Your task to perform on an android device: uninstall "ColorNote Notepad Notes" Image 0: 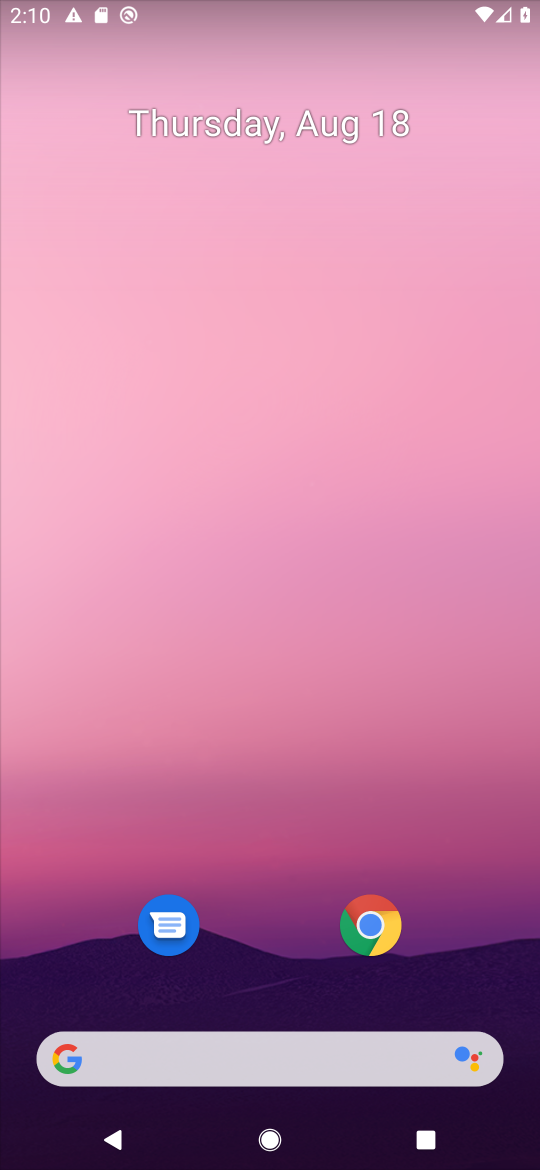
Step 0: drag from (237, 808) to (237, 220)
Your task to perform on an android device: uninstall "ColorNote Notepad Notes" Image 1: 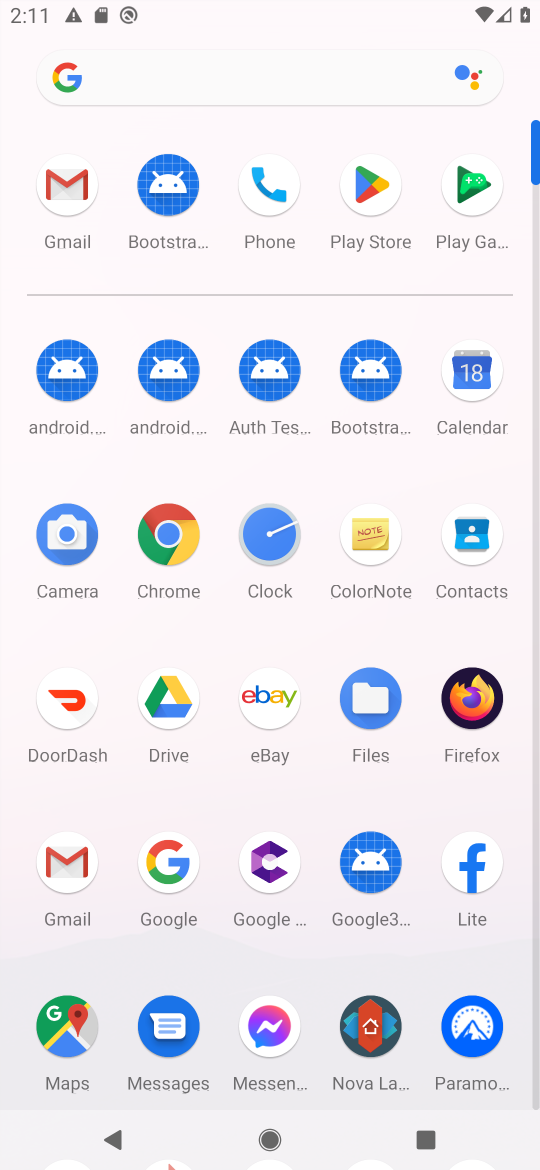
Step 1: click (372, 186)
Your task to perform on an android device: uninstall "ColorNote Notepad Notes" Image 2: 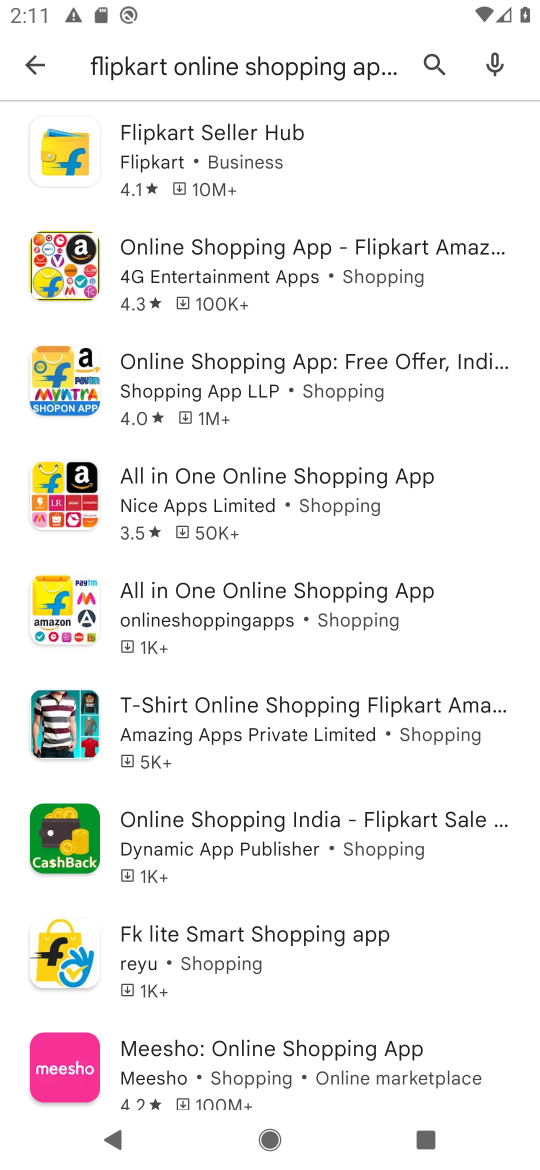
Step 2: click (46, 71)
Your task to perform on an android device: uninstall "ColorNote Notepad Notes" Image 3: 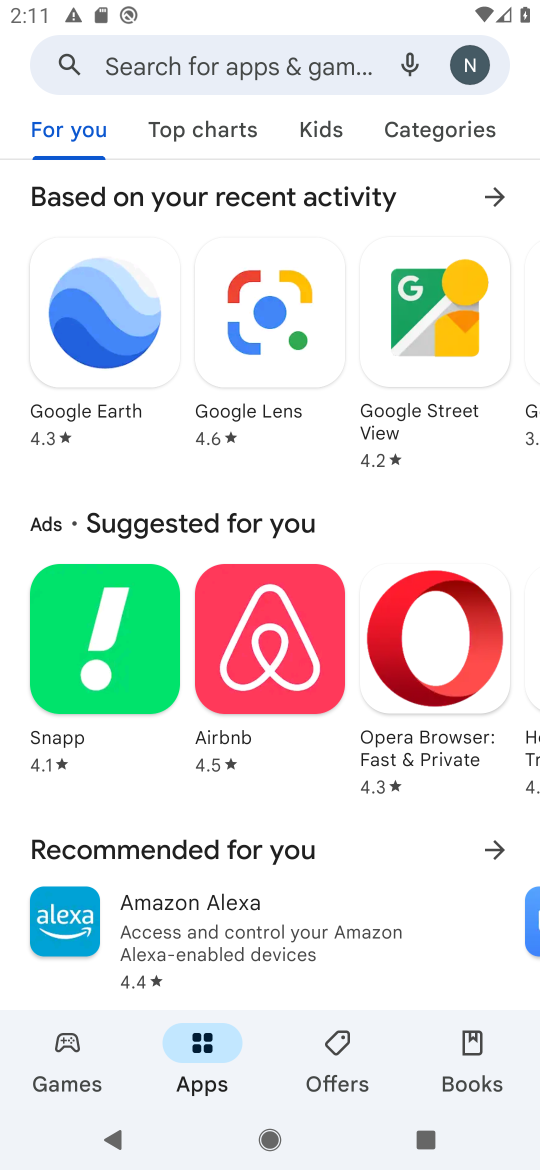
Step 3: click (220, 81)
Your task to perform on an android device: uninstall "ColorNote Notepad Notes" Image 4: 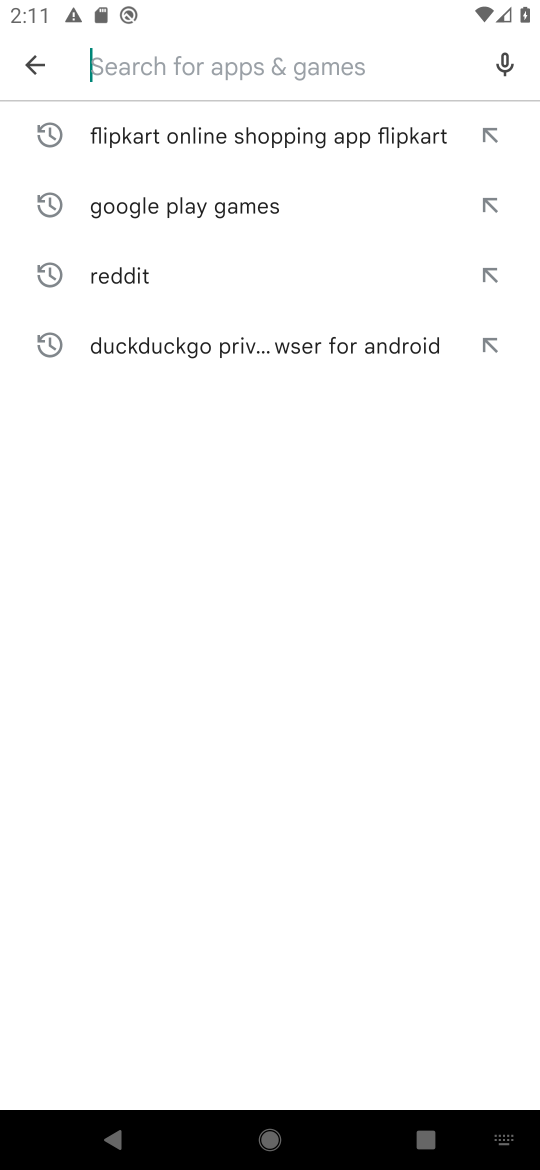
Step 4: type "ColorNote Notepad Note"
Your task to perform on an android device: uninstall "ColorNote Notepad Notes" Image 5: 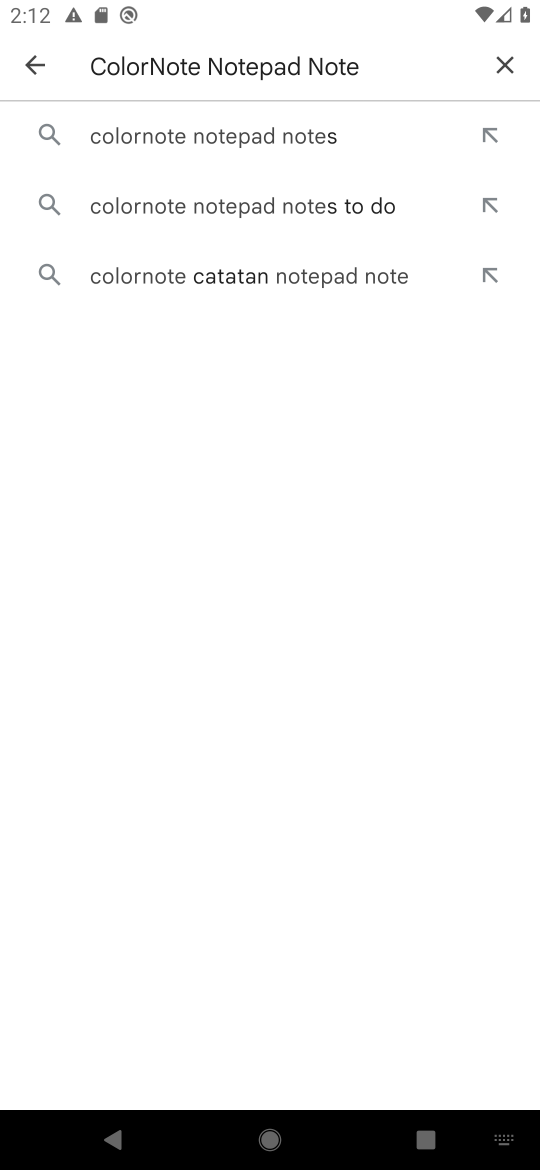
Step 5: click (267, 146)
Your task to perform on an android device: uninstall "ColorNote Notepad Notes" Image 6: 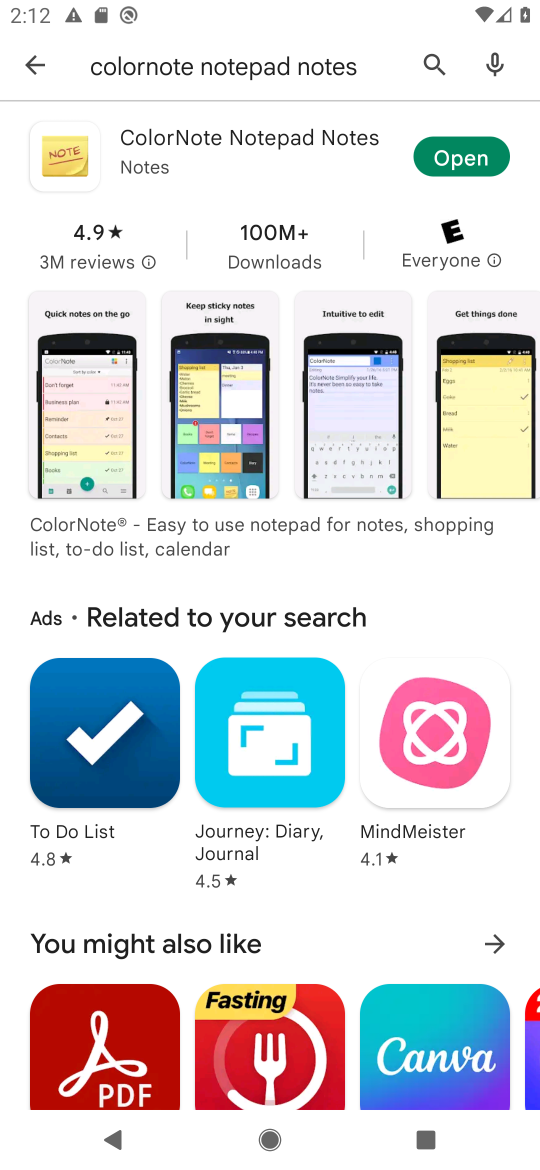
Step 6: click (459, 170)
Your task to perform on an android device: uninstall "ColorNote Notepad Notes" Image 7: 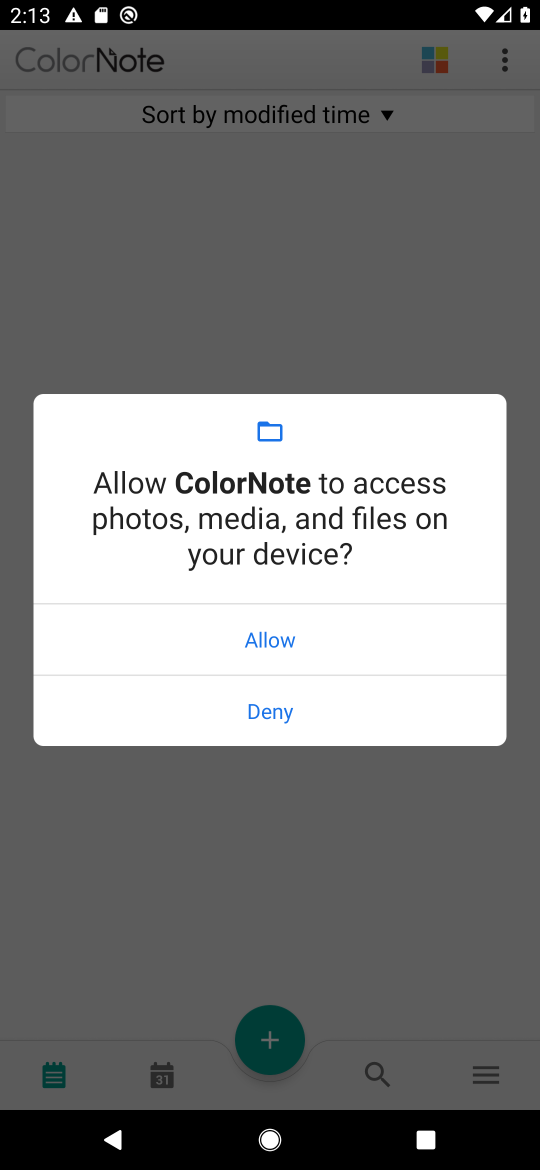
Step 7: click (257, 636)
Your task to perform on an android device: uninstall "ColorNote Notepad Notes" Image 8: 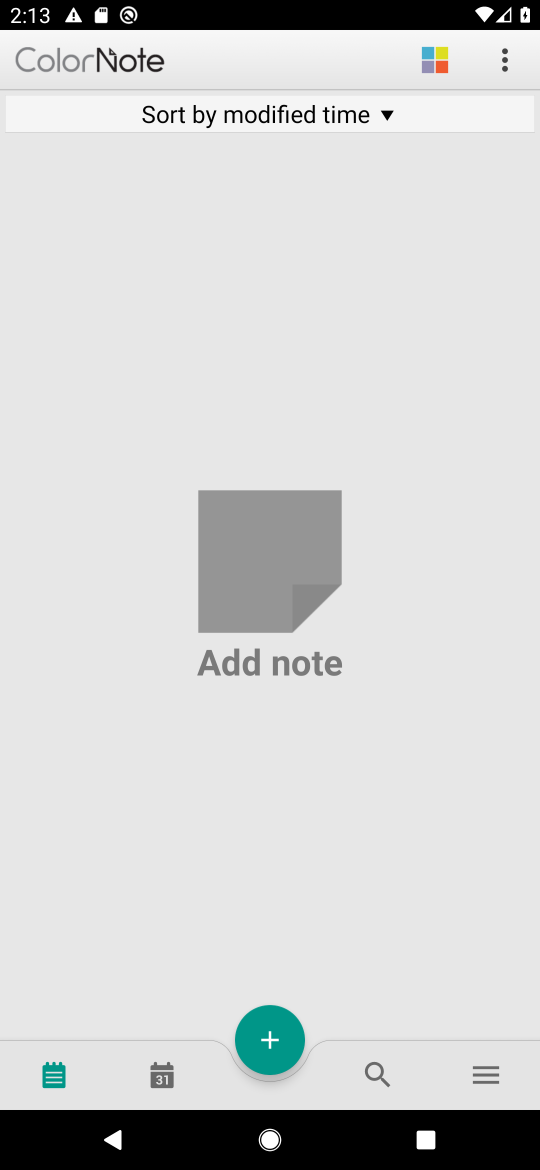
Step 8: press back button
Your task to perform on an android device: uninstall "ColorNote Notepad Notes" Image 9: 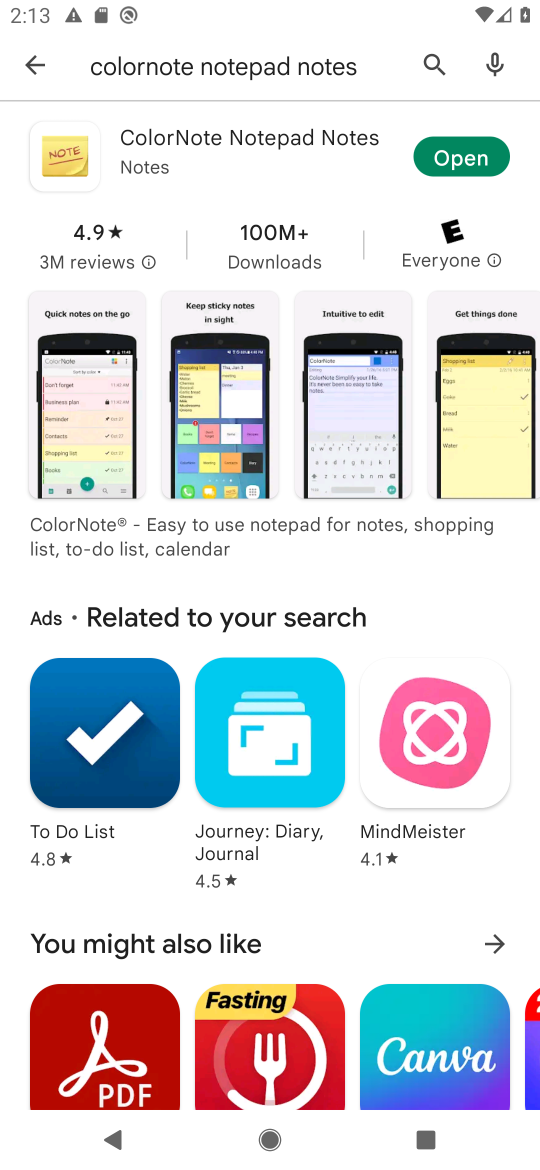
Step 9: click (30, 66)
Your task to perform on an android device: uninstall "ColorNote Notepad Notes" Image 10: 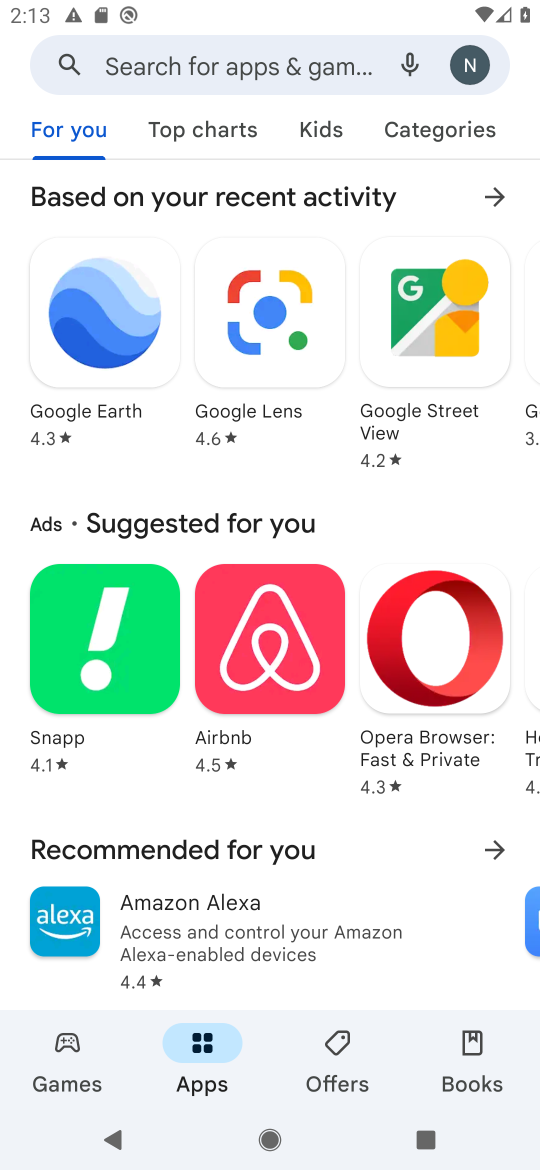
Step 10: click (165, 54)
Your task to perform on an android device: uninstall "ColorNote Notepad Notes" Image 11: 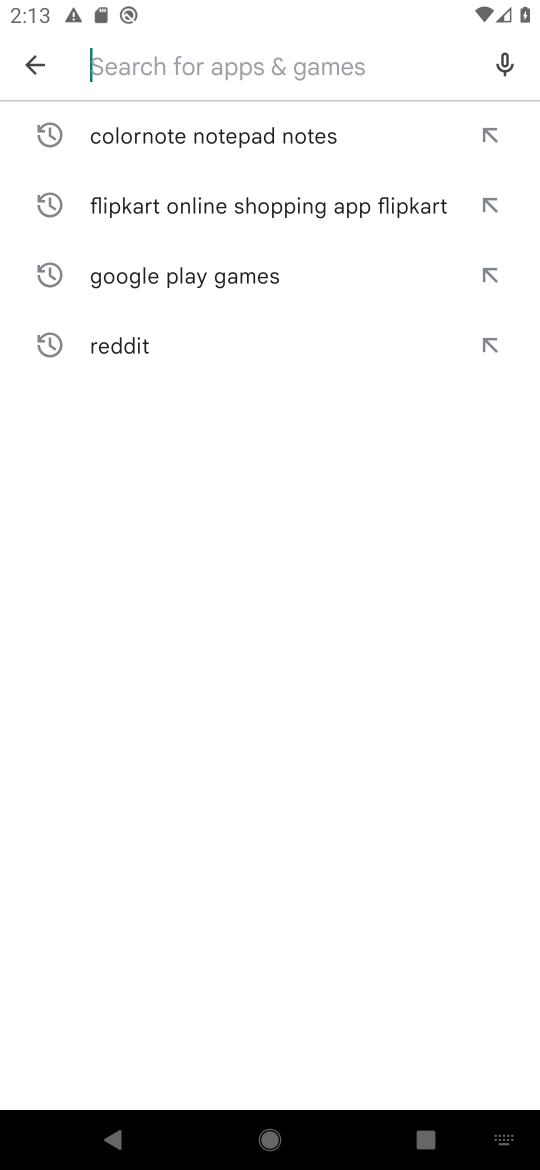
Step 11: click (171, 138)
Your task to perform on an android device: uninstall "ColorNote Notepad Notes" Image 12: 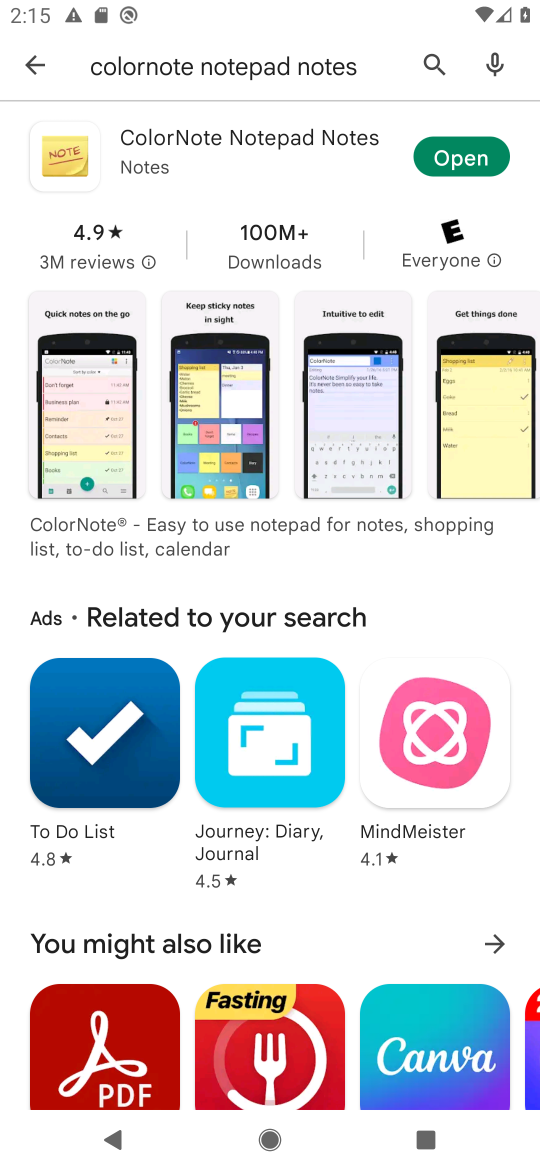
Step 12: task complete